Your task to perform on an android device: set the timer Image 0: 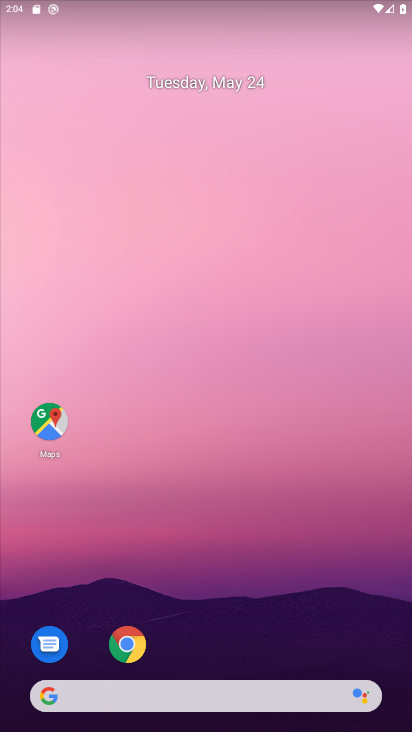
Step 0: drag from (195, 498) to (215, 17)
Your task to perform on an android device: set the timer Image 1: 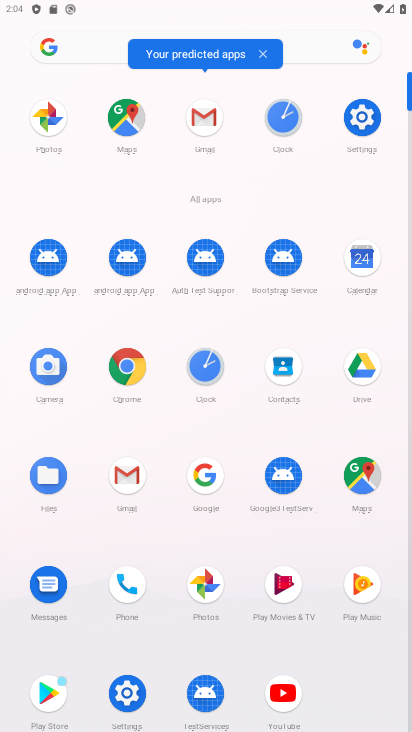
Step 1: click (210, 368)
Your task to perform on an android device: set the timer Image 2: 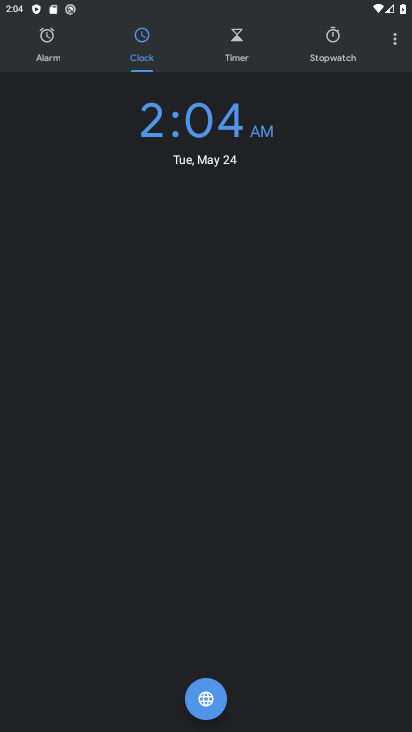
Step 2: click (237, 41)
Your task to perform on an android device: set the timer Image 3: 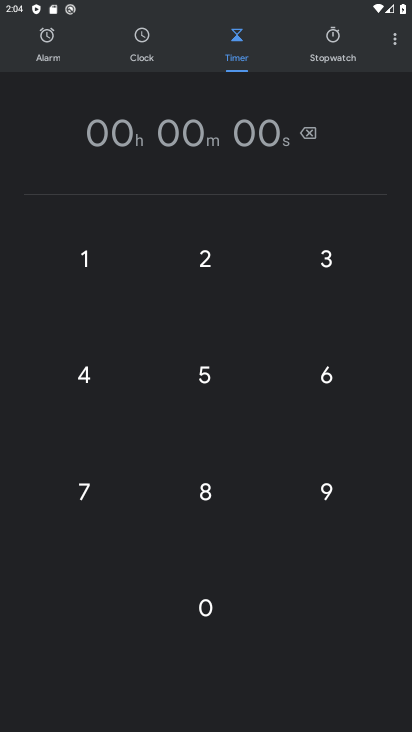
Step 3: click (201, 266)
Your task to perform on an android device: set the timer Image 4: 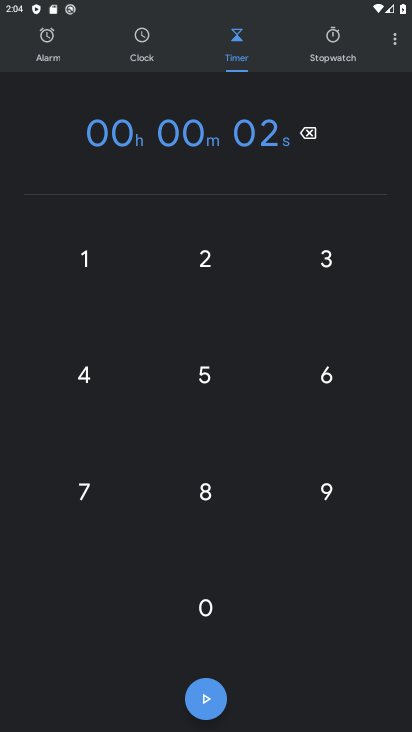
Step 4: click (201, 266)
Your task to perform on an android device: set the timer Image 5: 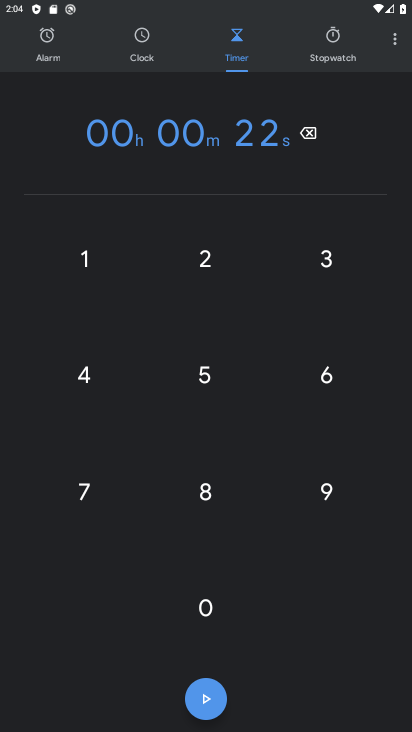
Step 5: task complete